Your task to perform on an android device: Go to Reddit.com Image 0: 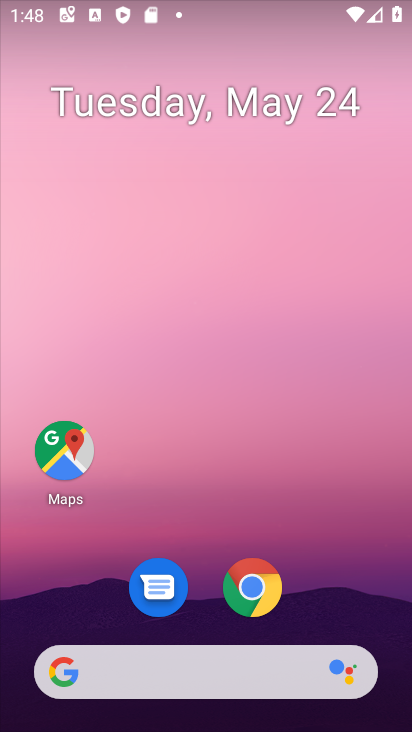
Step 0: drag from (201, 715) to (250, 238)
Your task to perform on an android device: Go to Reddit.com Image 1: 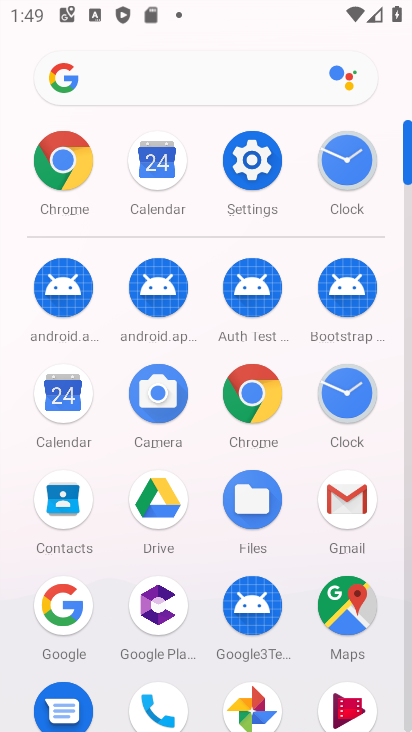
Step 1: click (46, 160)
Your task to perform on an android device: Go to Reddit.com Image 2: 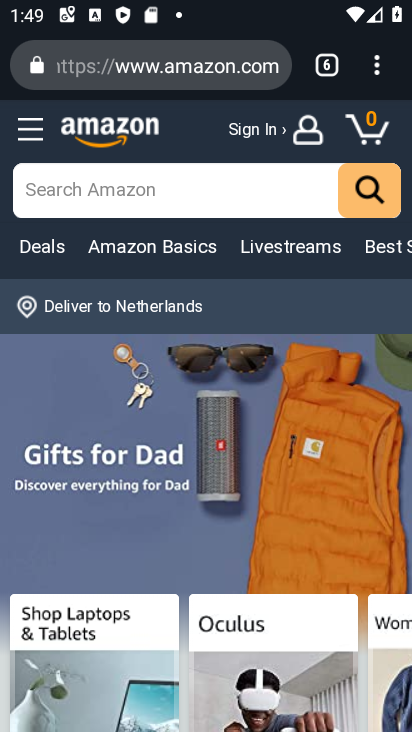
Step 2: click (378, 58)
Your task to perform on an android device: Go to Reddit.com Image 3: 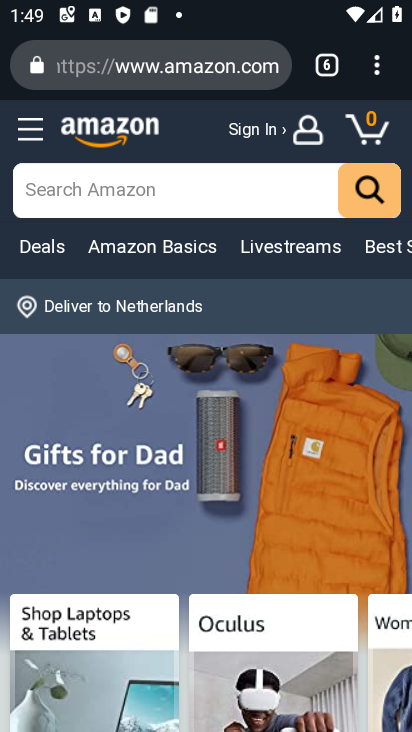
Step 3: click (376, 53)
Your task to perform on an android device: Go to Reddit.com Image 4: 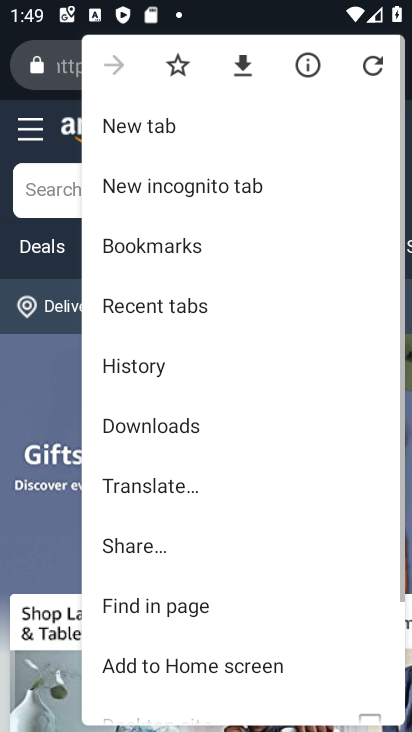
Step 4: click (180, 131)
Your task to perform on an android device: Go to Reddit.com Image 5: 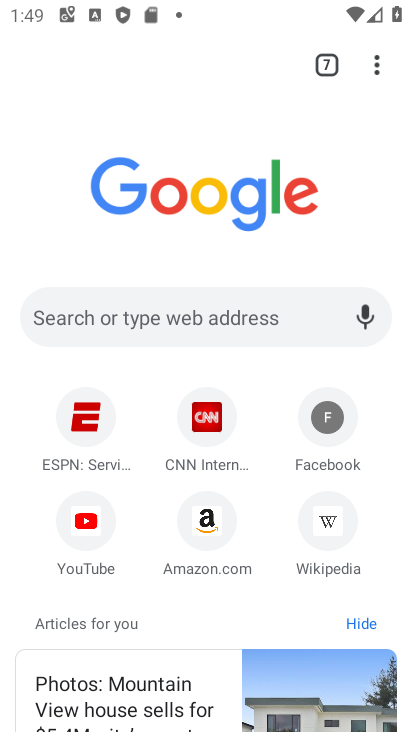
Step 5: click (195, 339)
Your task to perform on an android device: Go to Reddit.com Image 6: 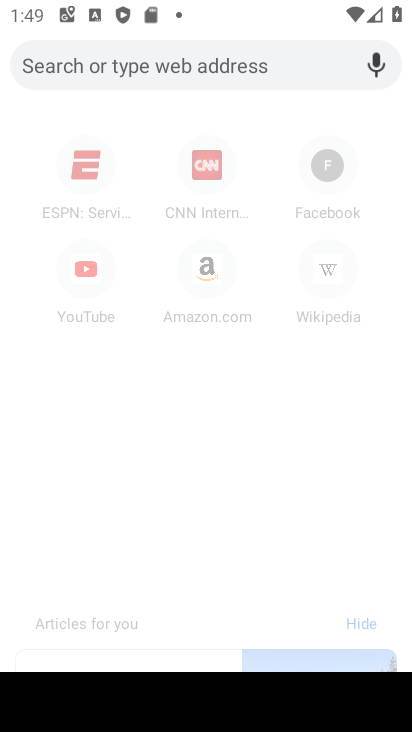
Step 6: click (284, 296)
Your task to perform on an android device: Go to Reddit.com Image 7: 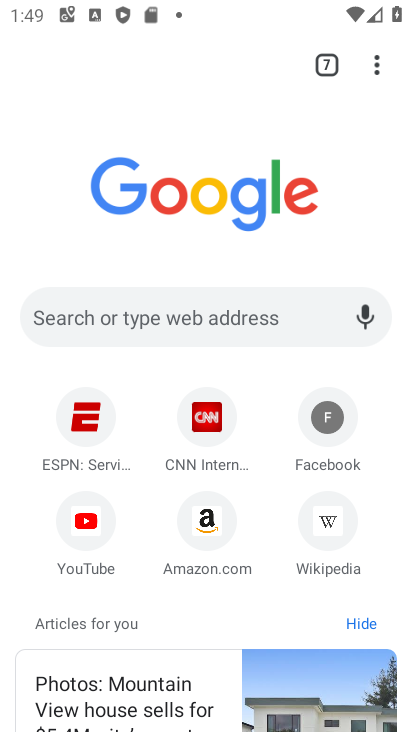
Step 7: type "reddit.com"
Your task to perform on an android device: Go to Reddit.com Image 8: 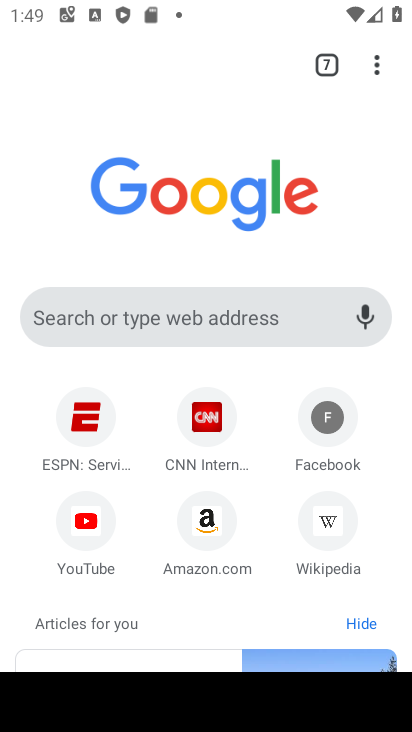
Step 8: click (256, 326)
Your task to perform on an android device: Go to Reddit.com Image 9: 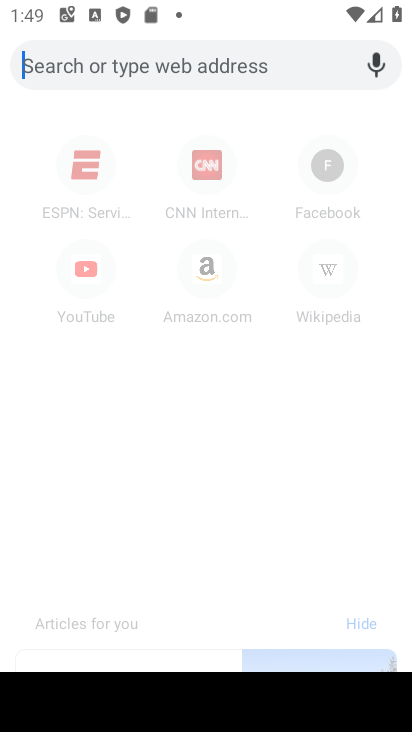
Step 9: type "reddit.com"
Your task to perform on an android device: Go to Reddit.com Image 10: 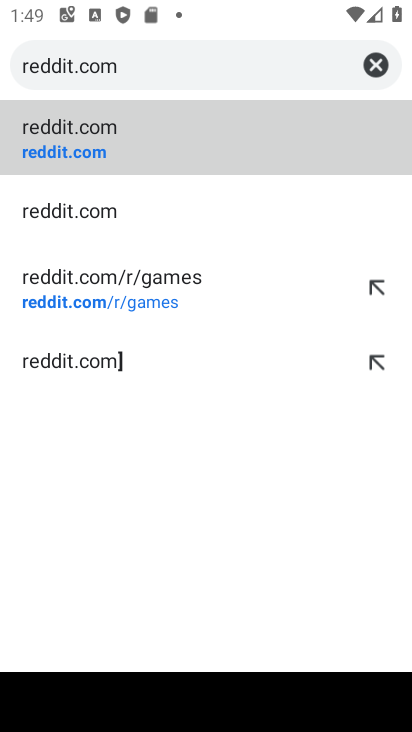
Step 10: click (237, 162)
Your task to perform on an android device: Go to Reddit.com Image 11: 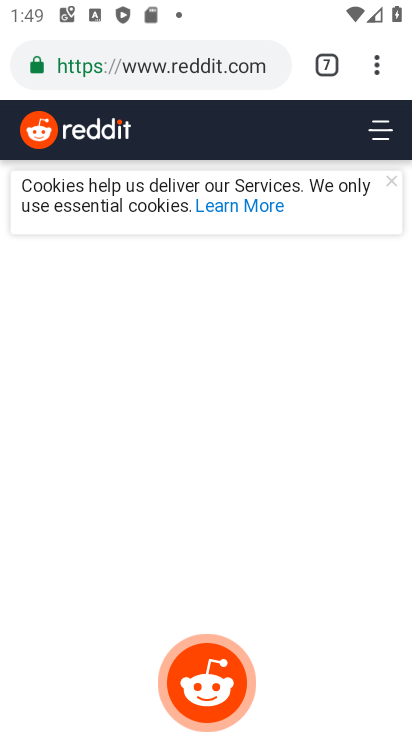
Step 11: task complete